Your task to perform on an android device: Search for Mexican restaurants on Maps Image 0: 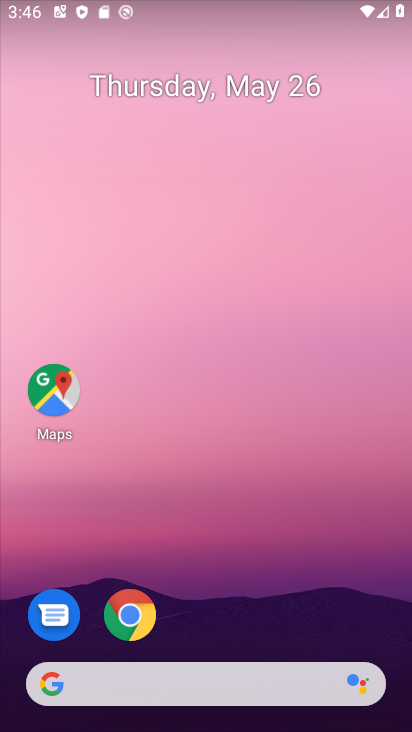
Step 0: click (24, 387)
Your task to perform on an android device: Search for Mexican restaurants on Maps Image 1: 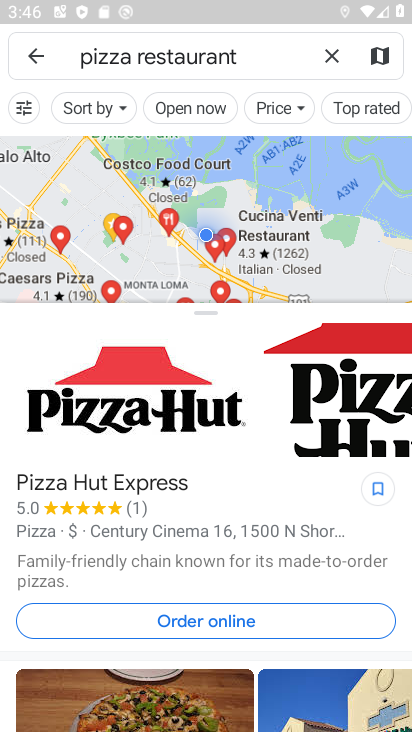
Step 1: click (327, 57)
Your task to perform on an android device: Search for Mexican restaurants on Maps Image 2: 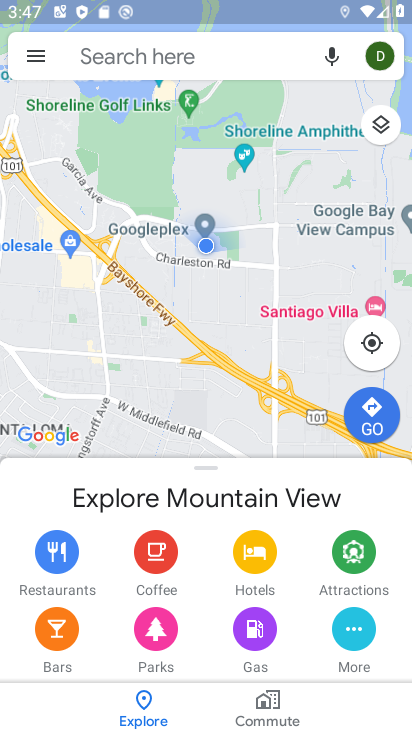
Step 2: click (252, 612)
Your task to perform on an android device: Search for Mexican restaurants on Maps Image 3: 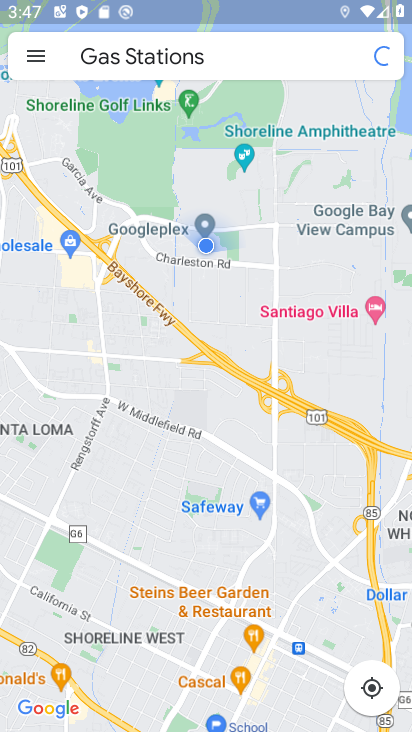
Step 3: click (153, 61)
Your task to perform on an android device: Search for Mexican restaurants on Maps Image 4: 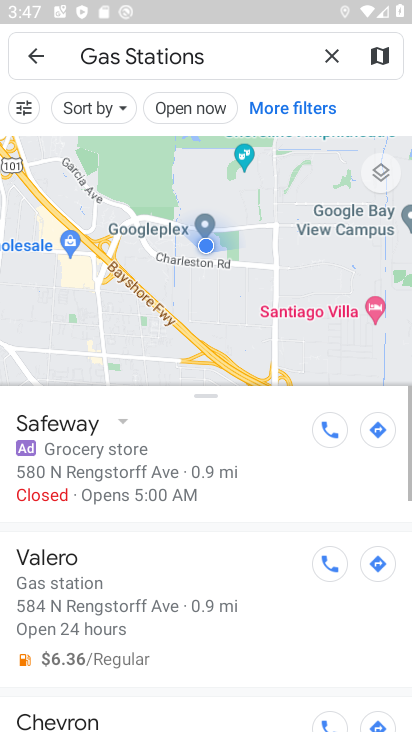
Step 4: click (277, 52)
Your task to perform on an android device: Search for Mexican restaurants on Maps Image 5: 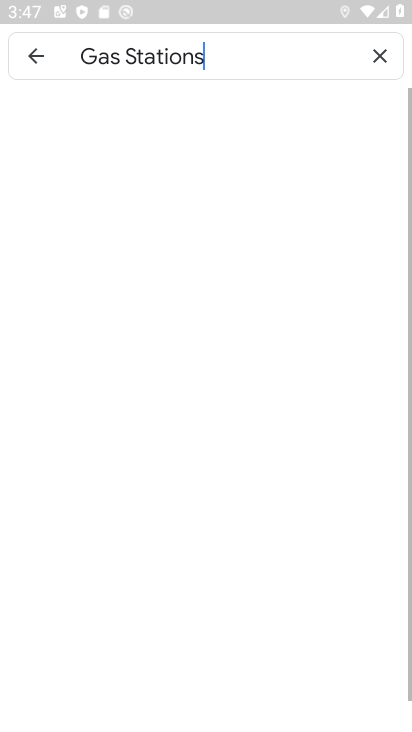
Step 5: click (329, 53)
Your task to perform on an android device: Search for Mexican restaurants on Maps Image 6: 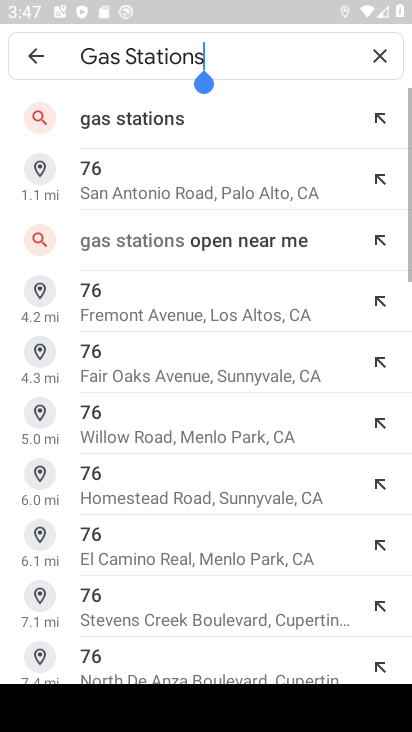
Step 6: click (393, 50)
Your task to perform on an android device: Search for Mexican restaurants on Maps Image 7: 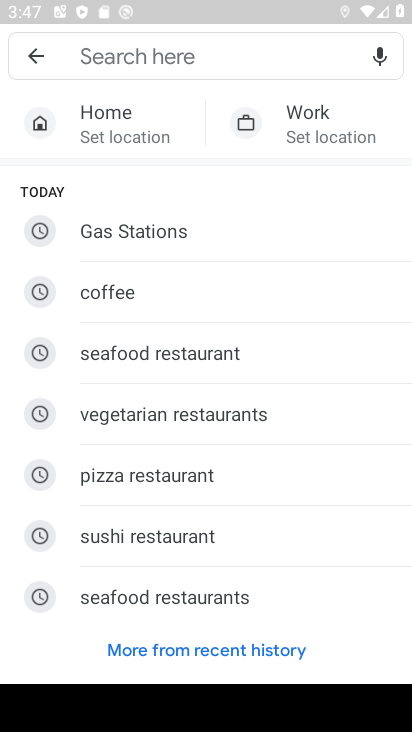
Step 7: type "mexicsn"
Your task to perform on an android device: Search for Mexican restaurants on Maps Image 8: 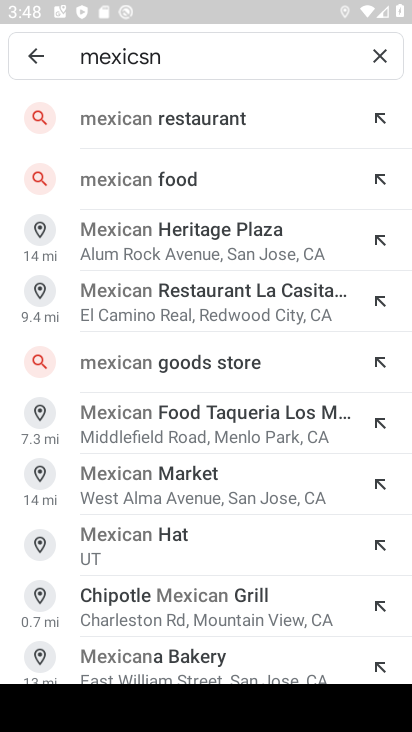
Step 8: click (202, 109)
Your task to perform on an android device: Search for Mexican restaurants on Maps Image 9: 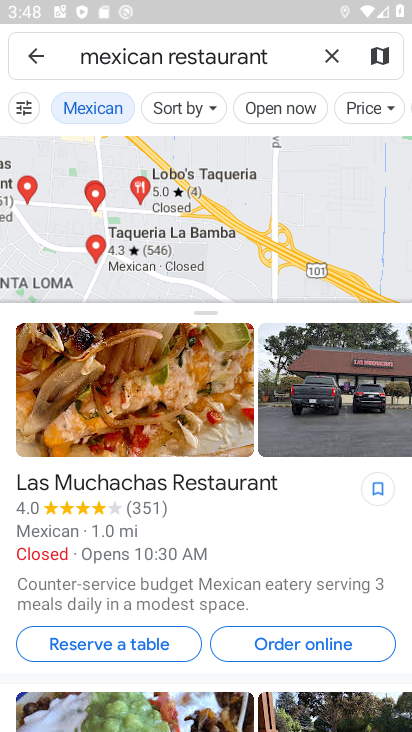
Step 9: task complete